Your task to perform on an android device: all mails in gmail Image 0: 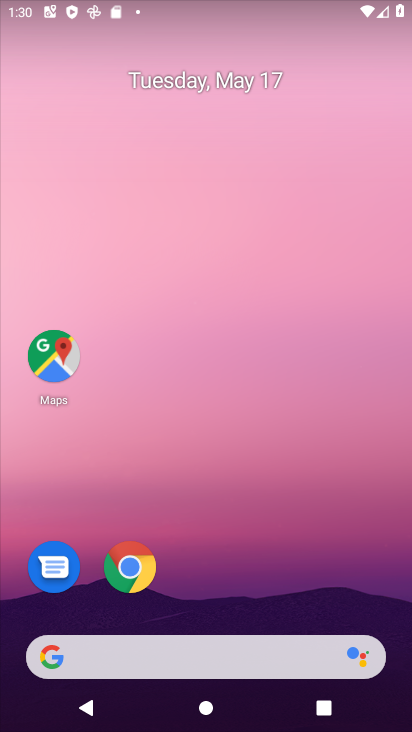
Step 0: drag from (411, 627) to (307, 119)
Your task to perform on an android device: all mails in gmail Image 1: 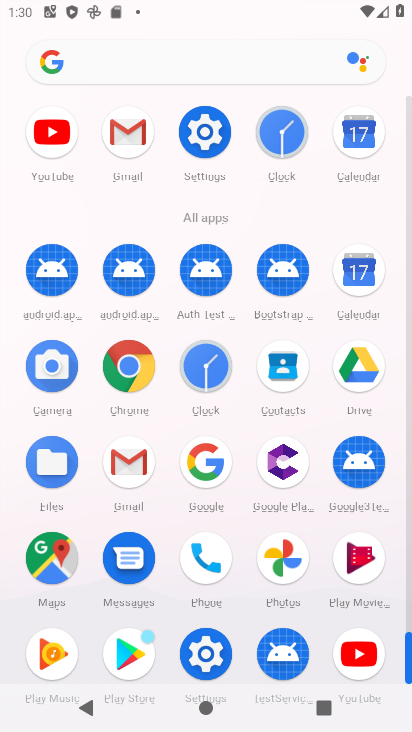
Step 1: click (410, 628)
Your task to perform on an android device: all mails in gmail Image 2: 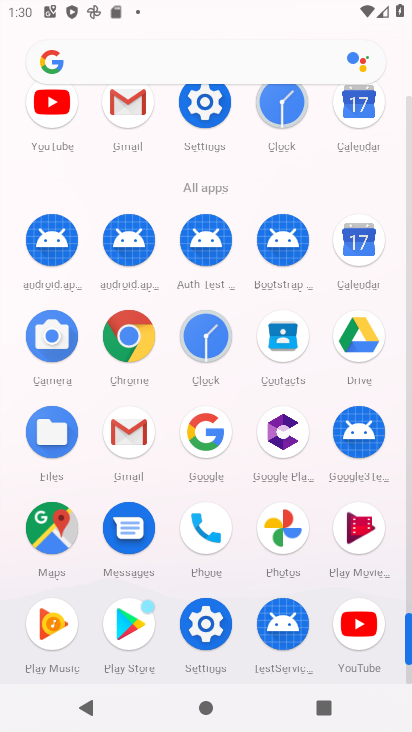
Step 2: click (130, 434)
Your task to perform on an android device: all mails in gmail Image 3: 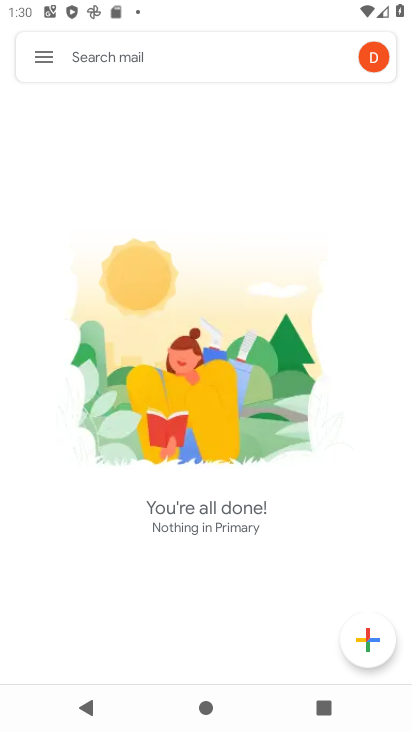
Step 3: click (45, 55)
Your task to perform on an android device: all mails in gmail Image 4: 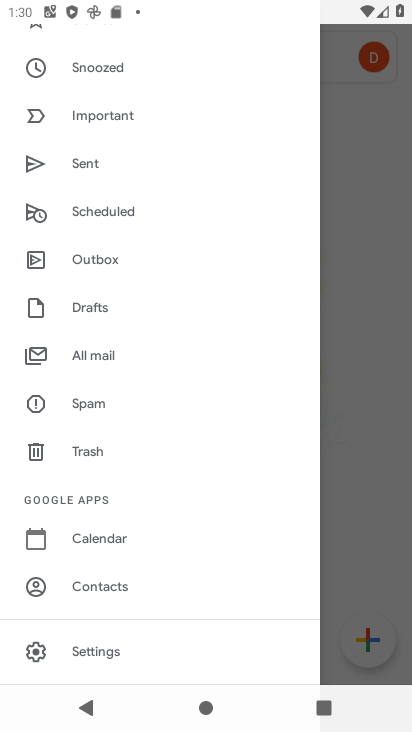
Step 4: click (96, 354)
Your task to perform on an android device: all mails in gmail Image 5: 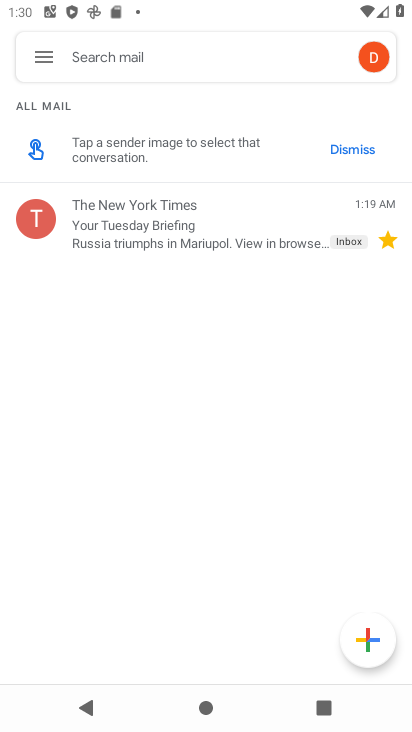
Step 5: task complete